Your task to perform on an android device: turn off sleep mode Image 0: 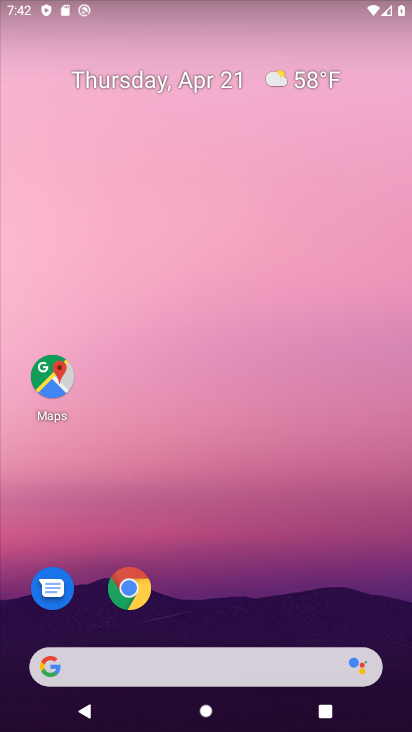
Step 0: drag from (338, 5) to (318, 443)
Your task to perform on an android device: turn off sleep mode Image 1: 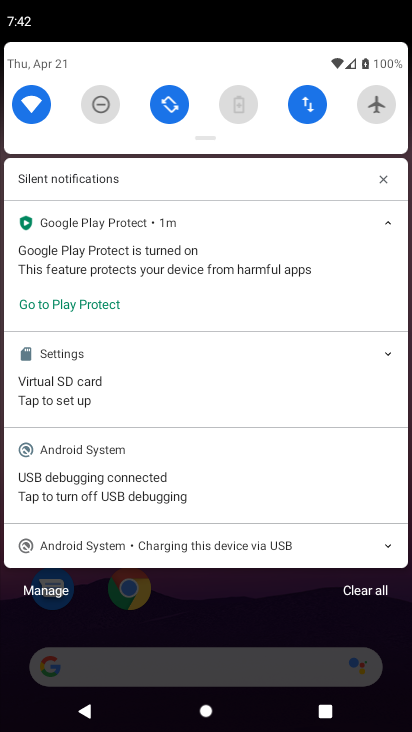
Step 1: drag from (213, 134) to (166, 560)
Your task to perform on an android device: turn off sleep mode Image 2: 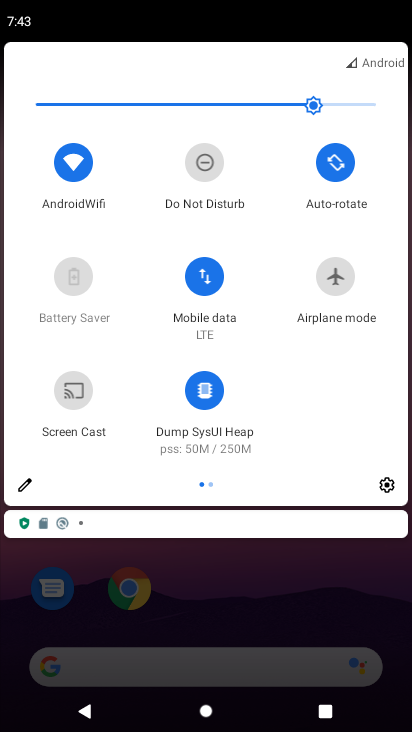
Step 2: click (22, 478)
Your task to perform on an android device: turn off sleep mode Image 3: 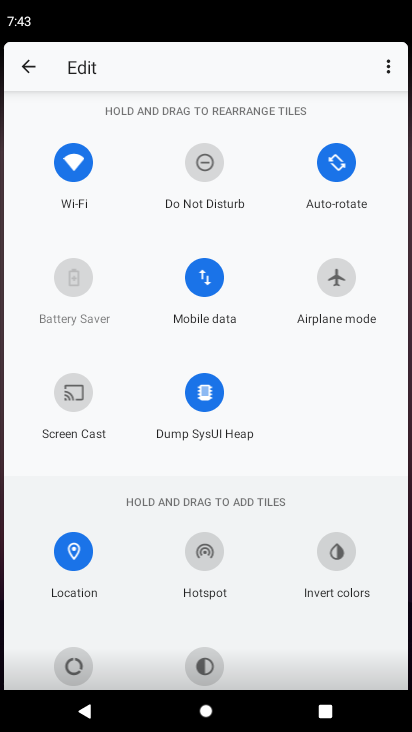
Step 3: drag from (258, 580) to (254, 260)
Your task to perform on an android device: turn off sleep mode Image 4: 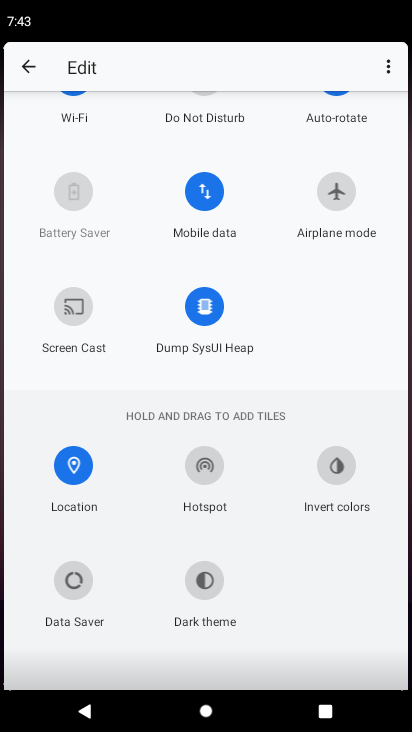
Step 4: click (30, 61)
Your task to perform on an android device: turn off sleep mode Image 5: 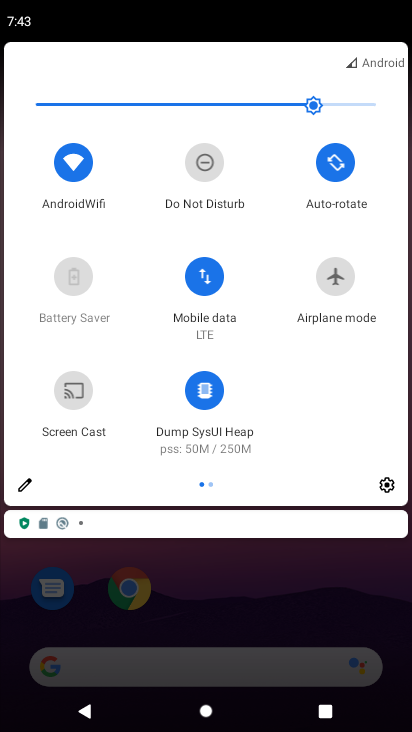
Step 5: task complete